Your task to perform on an android device: Open maps Image 0: 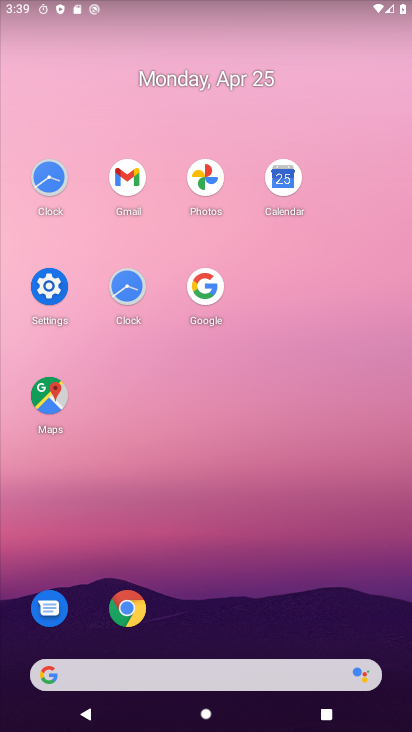
Step 0: click (46, 398)
Your task to perform on an android device: Open maps Image 1: 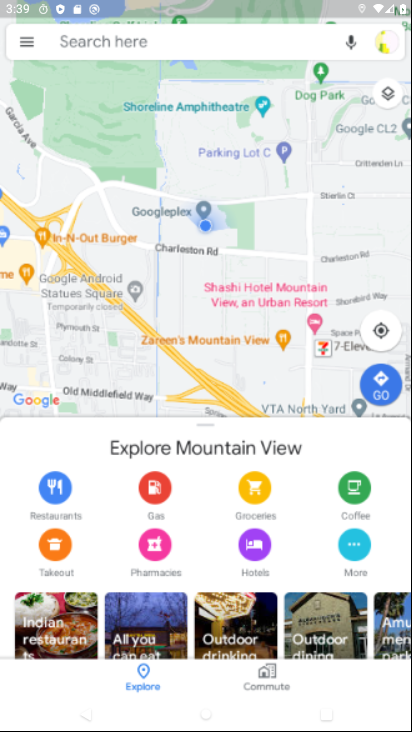
Step 1: task complete